Your task to perform on an android device: Go to eBay Image 0: 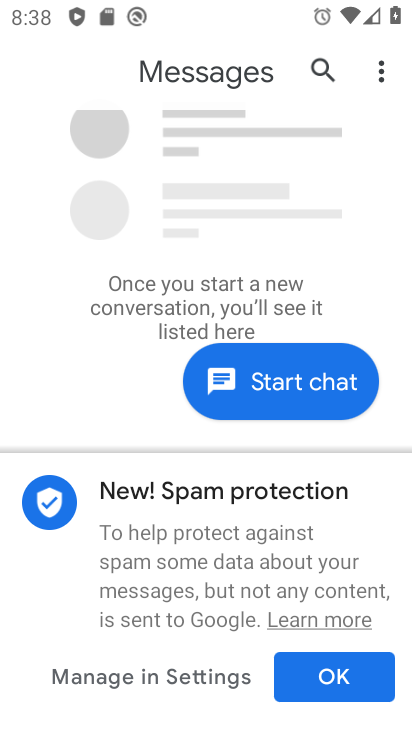
Step 0: press home button
Your task to perform on an android device: Go to eBay Image 1: 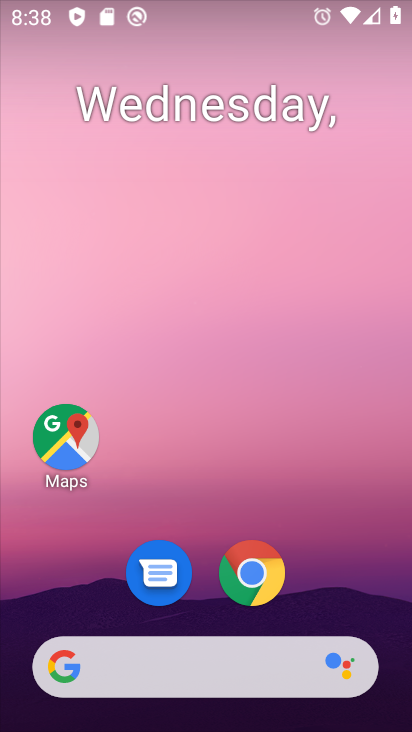
Step 1: drag from (173, 644) to (151, 194)
Your task to perform on an android device: Go to eBay Image 2: 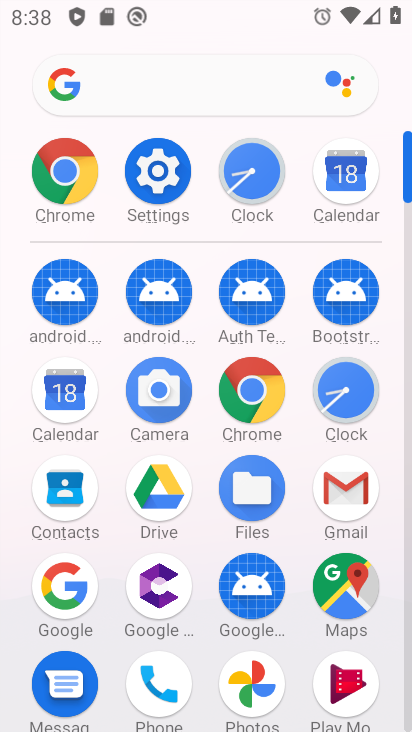
Step 2: click (282, 387)
Your task to perform on an android device: Go to eBay Image 3: 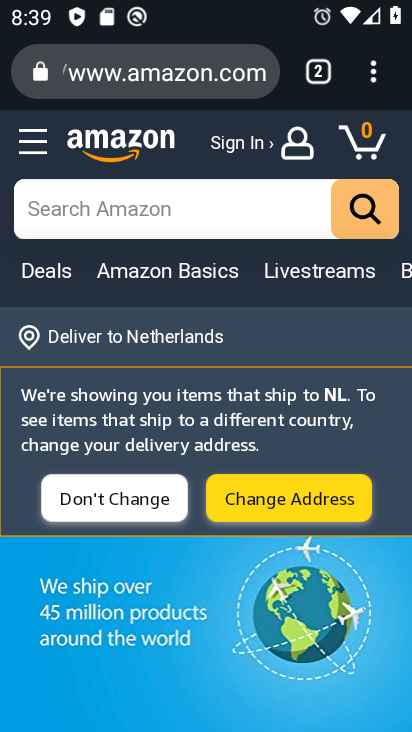
Step 3: click (216, 68)
Your task to perform on an android device: Go to eBay Image 4: 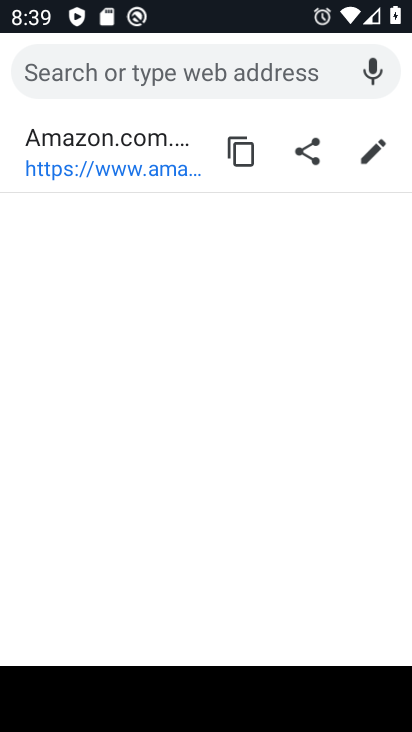
Step 4: type "ebay"
Your task to perform on an android device: Go to eBay Image 5: 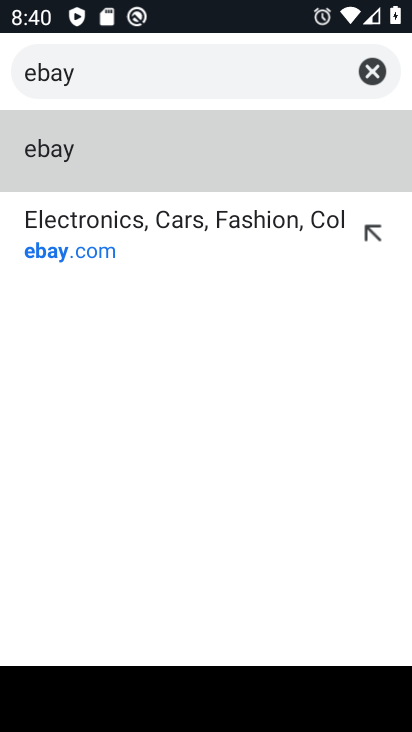
Step 5: click (115, 260)
Your task to perform on an android device: Go to eBay Image 6: 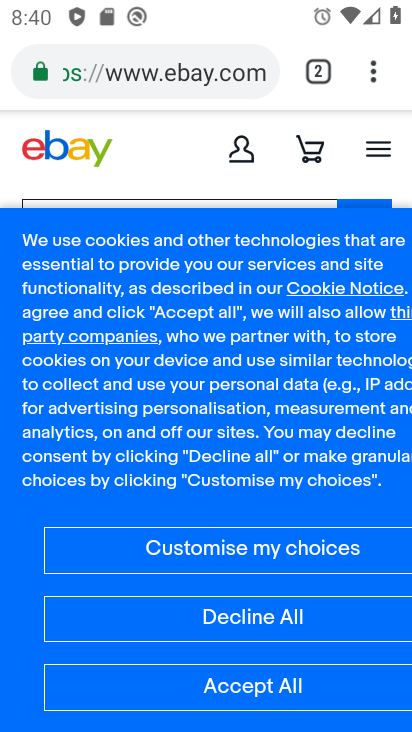
Step 6: task complete